Your task to perform on an android device: open app "VLC for Android" (install if not already installed) and enter user name: "Yves@outlook.com" and password: "internally" Image 0: 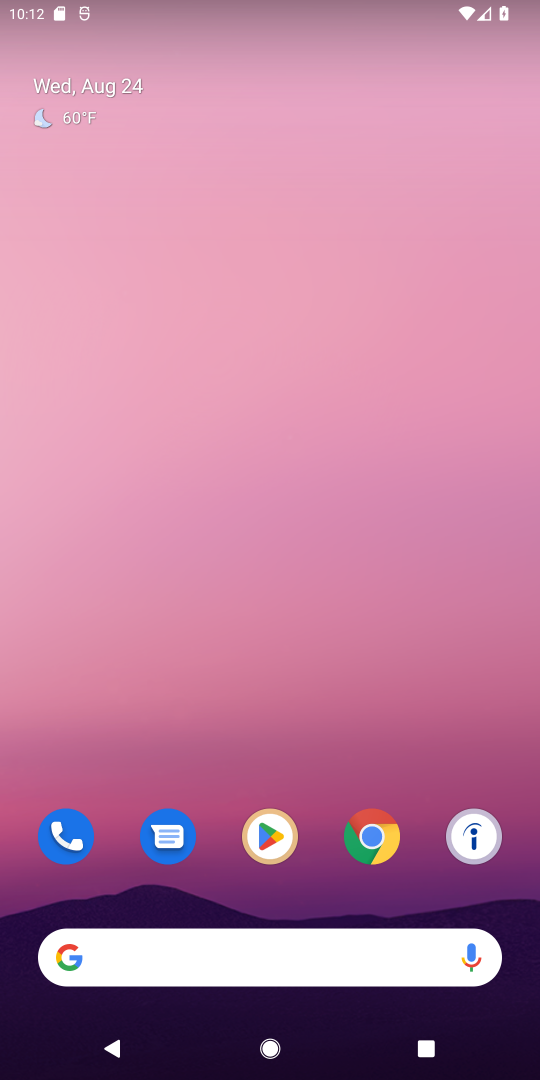
Step 0: click (262, 828)
Your task to perform on an android device: open app "VLC for Android" (install if not already installed) and enter user name: "Yves@outlook.com" and password: "internally" Image 1: 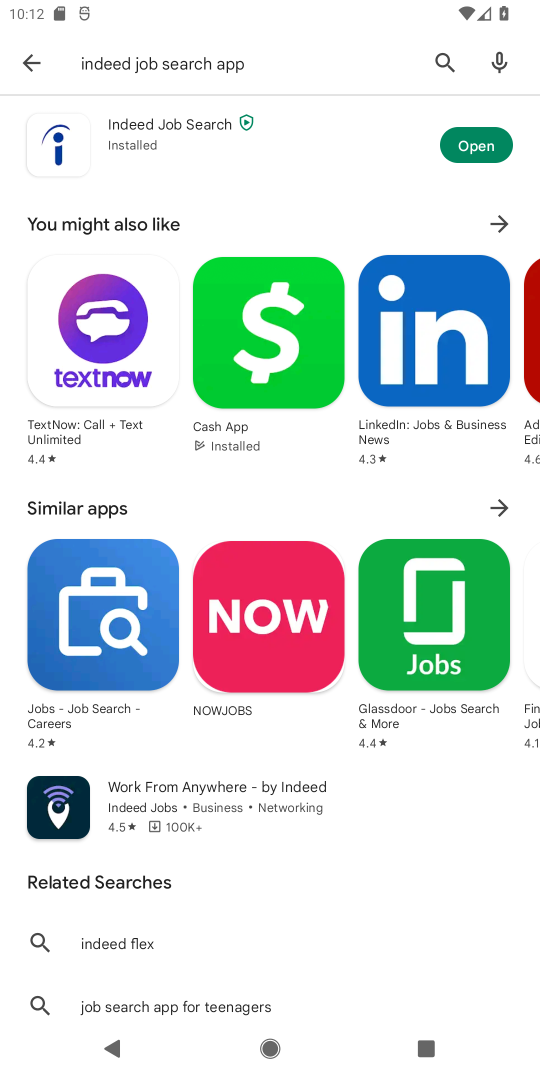
Step 1: click (436, 62)
Your task to perform on an android device: open app "VLC for Android" (install if not already installed) and enter user name: "Yves@outlook.com" and password: "internally" Image 2: 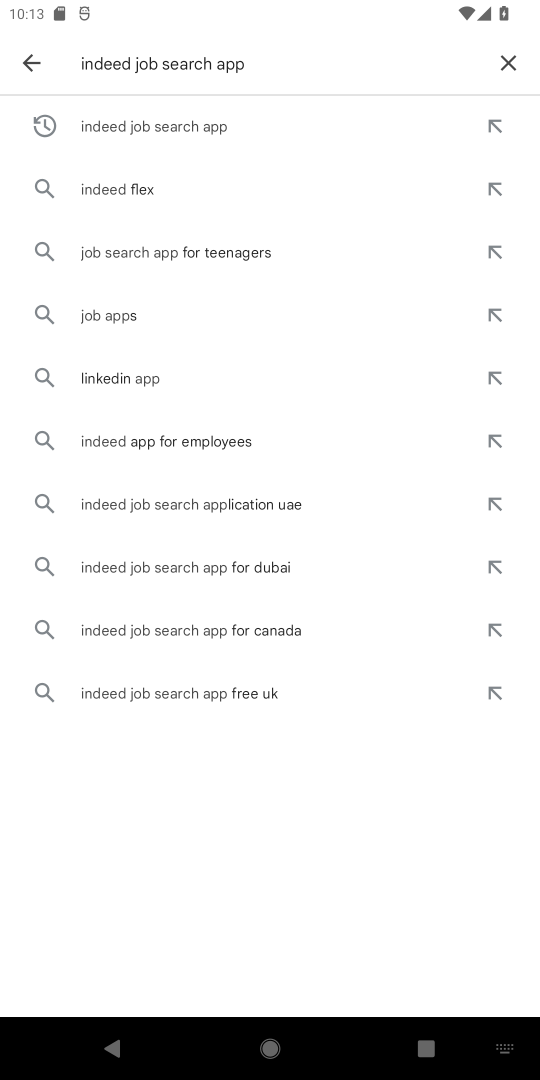
Step 2: click (496, 56)
Your task to perform on an android device: open app "VLC for Android" (install if not already installed) and enter user name: "Yves@outlook.com" and password: "internally" Image 3: 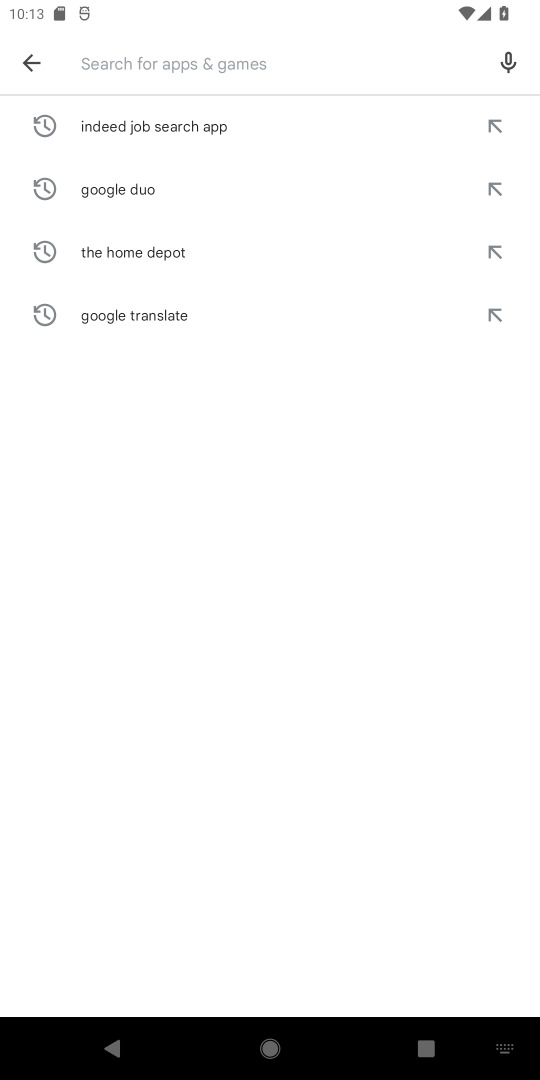
Step 3: type "VLC for Android"
Your task to perform on an android device: open app "VLC for Android" (install if not already installed) and enter user name: "Yves@outlook.com" and password: "internally" Image 4: 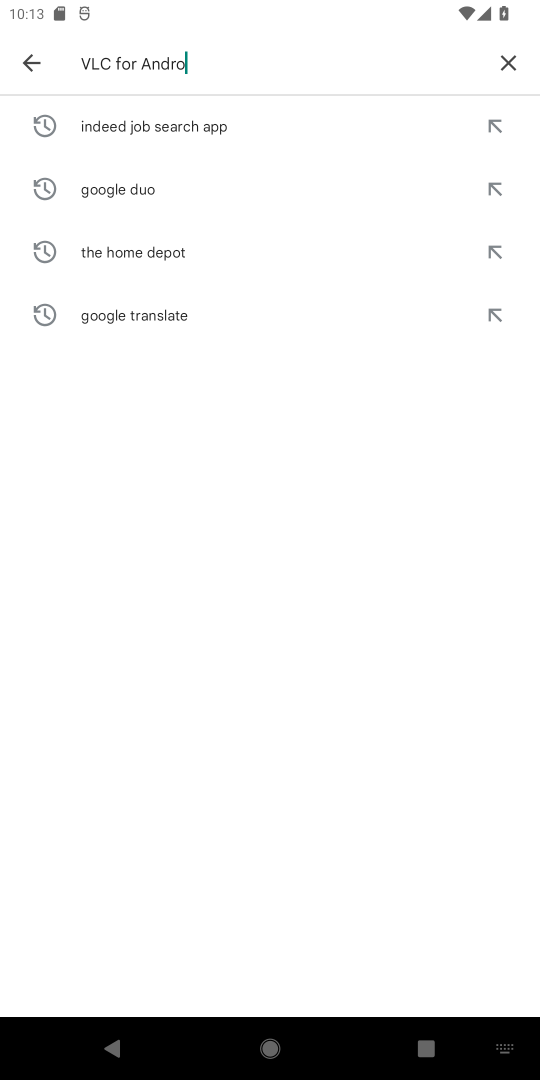
Step 4: type ""
Your task to perform on an android device: open app "VLC for Android" (install if not already installed) and enter user name: "Yves@outlook.com" and password: "internally" Image 5: 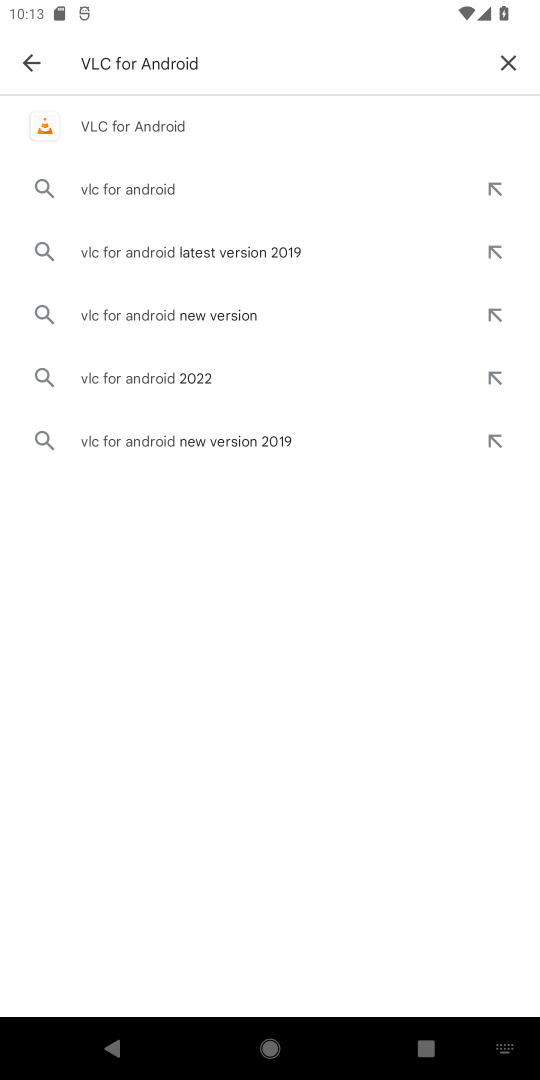
Step 5: click (235, 117)
Your task to perform on an android device: open app "VLC for Android" (install if not already installed) and enter user name: "Yves@outlook.com" and password: "internally" Image 6: 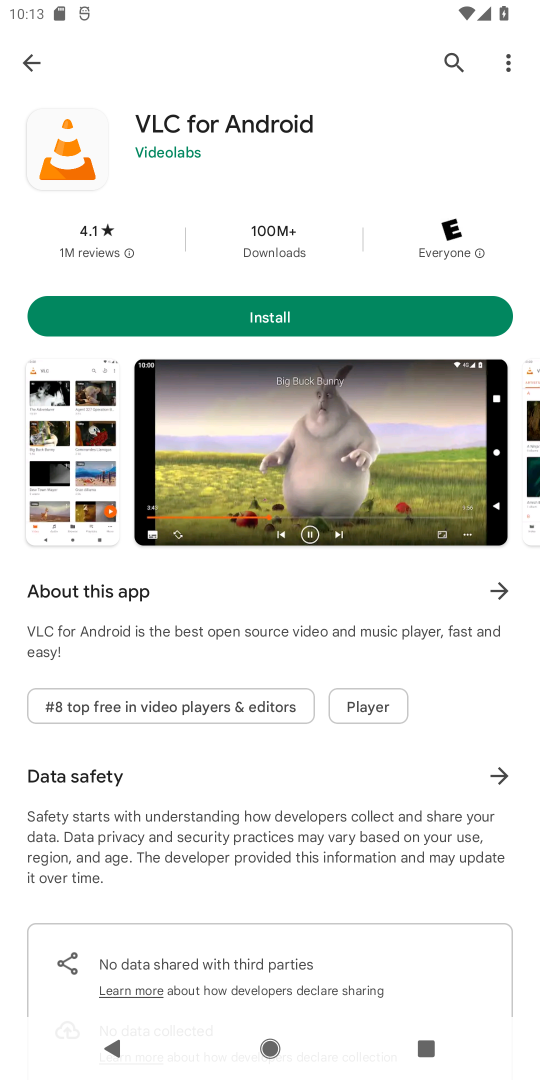
Step 6: click (237, 309)
Your task to perform on an android device: open app "VLC for Android" (install if not already installed) and enter user name: "Yves@outlook.com" and password: "internally" Image 7: 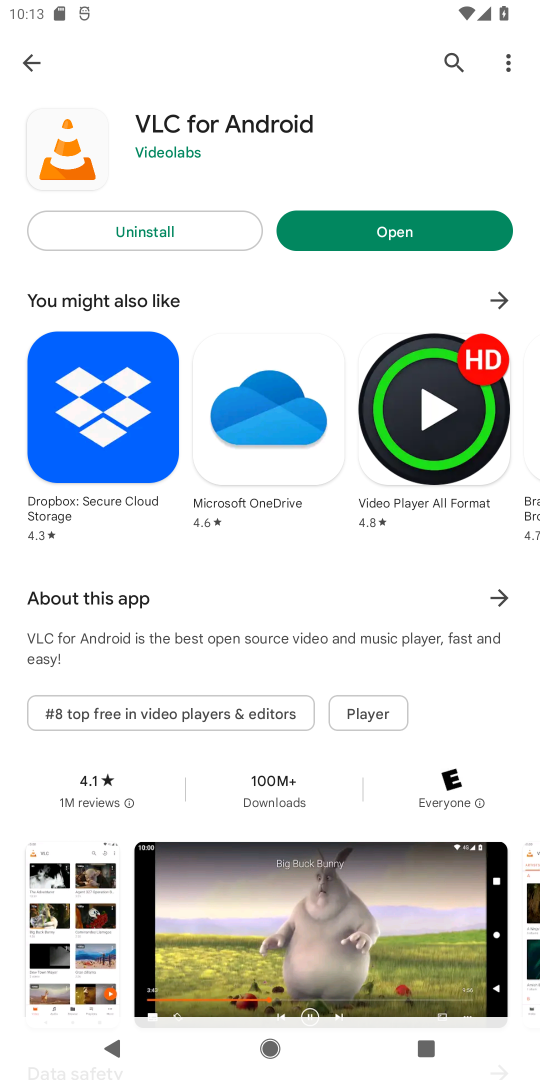
Step 7: click (401, 219)
Your task to perform on an android device: open app "VLC for Android" (install if not already installed) and enter user name: "Yves@outlook.com" and password: "internally" Image 8: 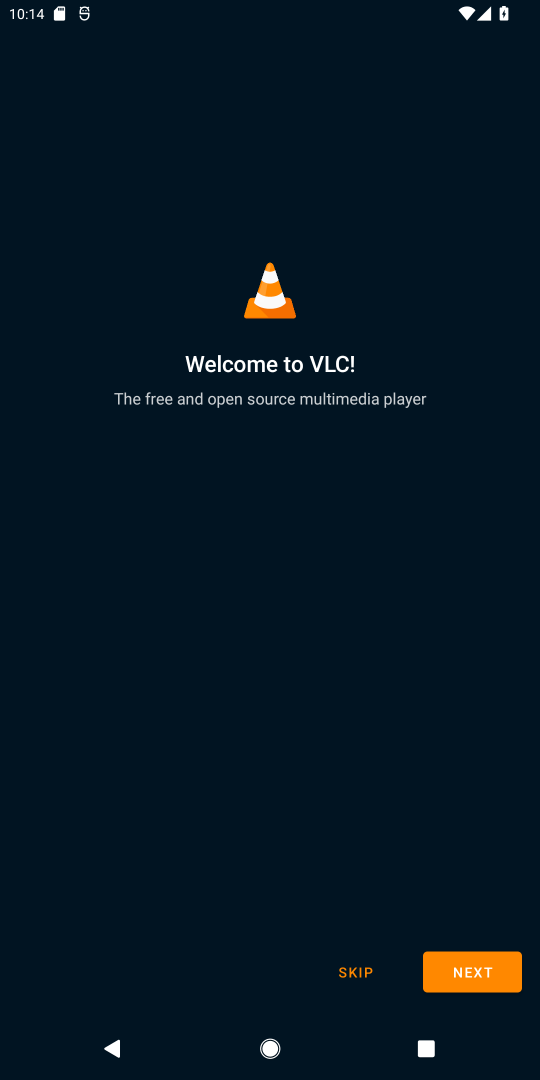
Step 8: task complete